Your task to perform on an android device: Search for vegetarian restaurants on Maps Image 0: 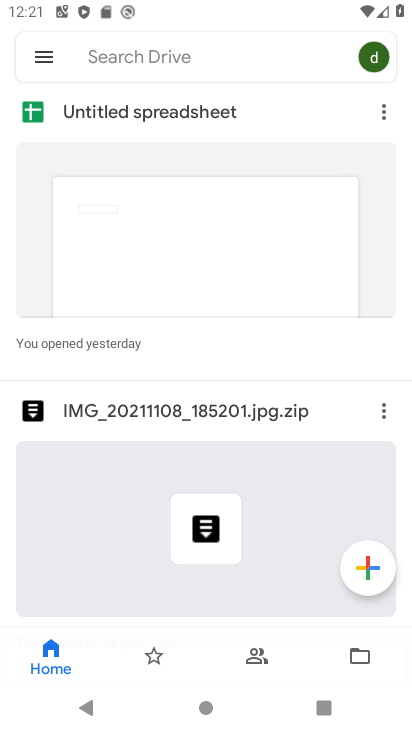
Step 0: press home button
Your task to perform on an android device: Search for vegetarian restaurants on Maps Image 1: 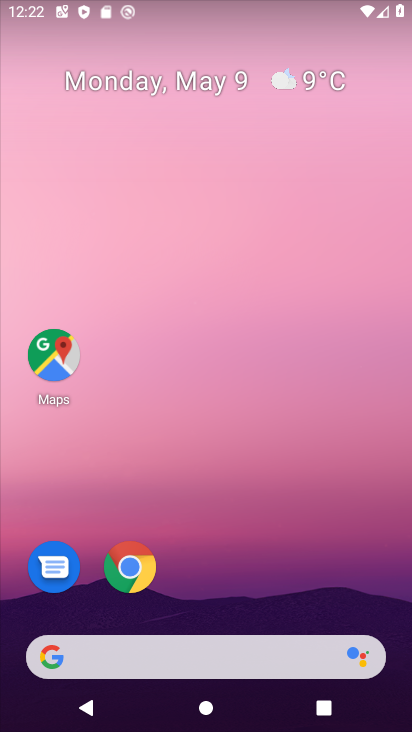
Step 1: drag from (274, 668) to (214, 239)
Your task to perform on an android device: Search for vegetarian restaurants on Maps Image 2: 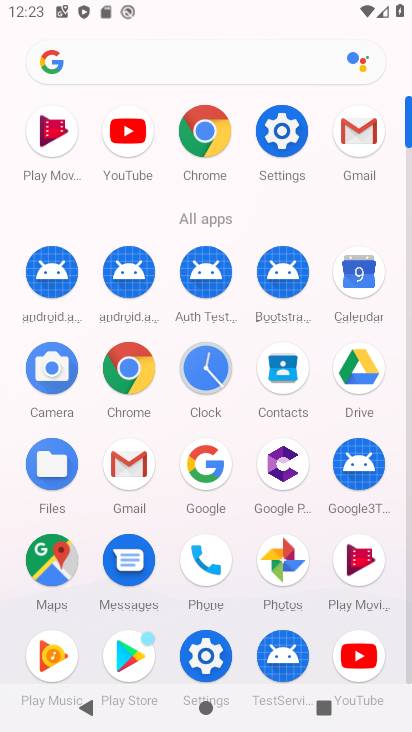
Step 2: click (58, 547)
Your task to perform on an android device: Search for vegetarian restaurants on Maps Image 3: 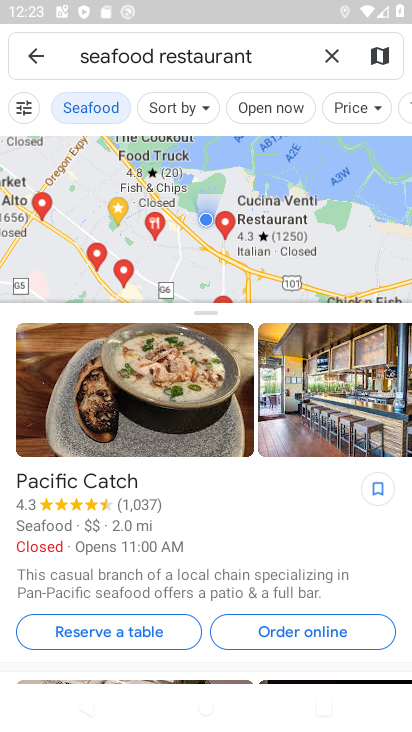
Step 3: click (337, 53)
Your task to perform on an android device: Search for vegetarian restaurants on Maps Image 4: 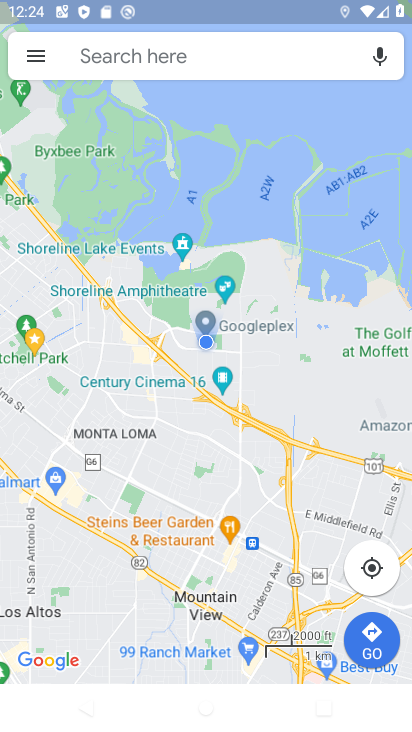
Step 4: click (243, 54)
Your task to perform on an android device: Search for vegetarian restaurants on Maps Image 5: 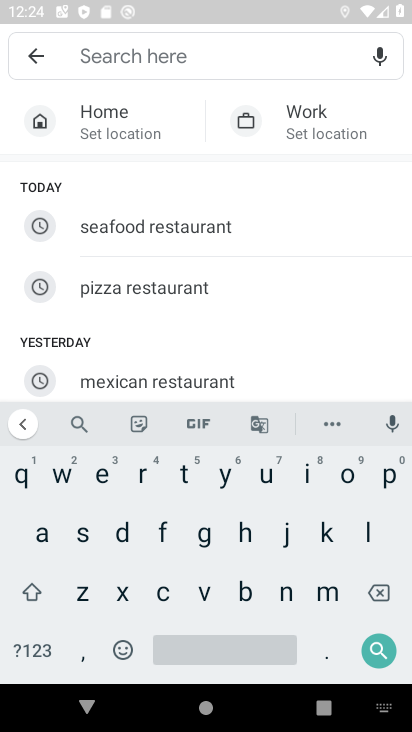
Step 5: click (201, 595)
Your task to perform on an android device: Search for vegetarian restaurants on Maps Image 6: 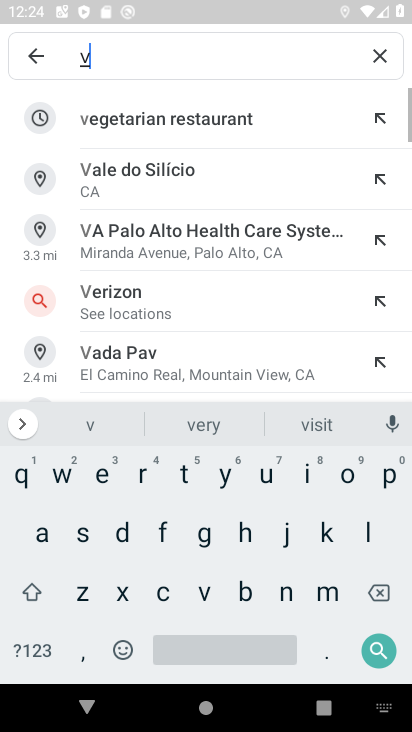
Step 6: click (93, 469)
Your task to perform on an android device: Search for vegetarian restaurants on Maps Image 7: 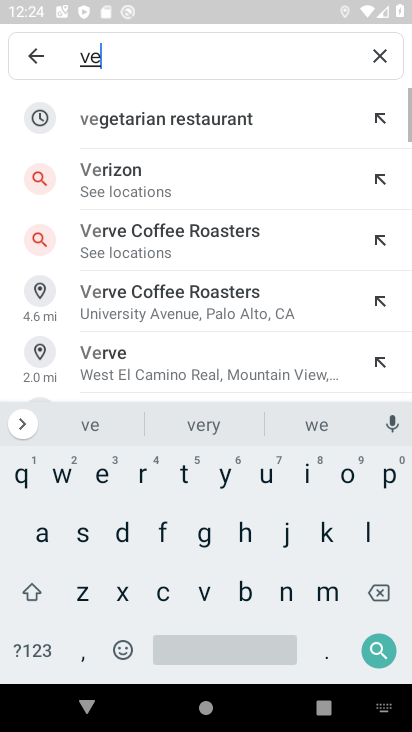
Step 7: click (217, 113)
Your task to perform on an android device: Search for vegetarian restaurants on Maps Image 8: 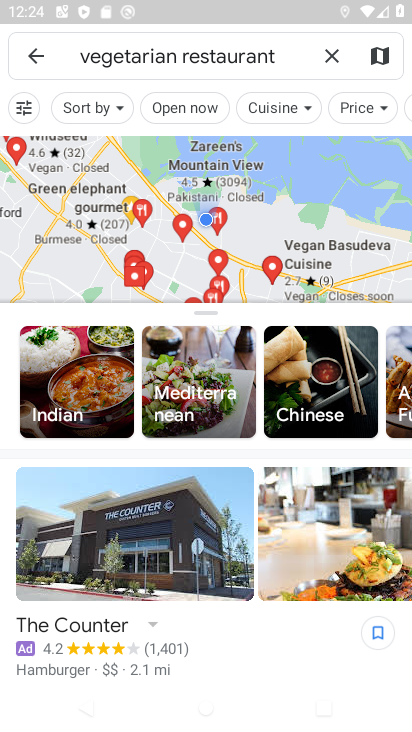
Step 8: task complete